Your task to perform on an android device: Do I have any events today? Image 0: 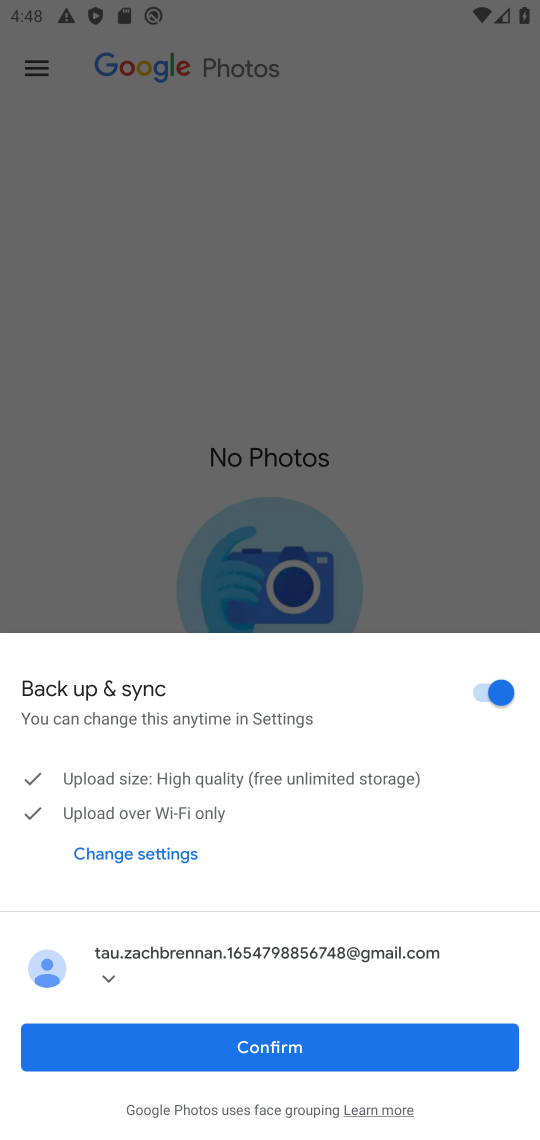
Step 0: press home button
Your task to perform on an android device: Do I have any events today? Image 1: 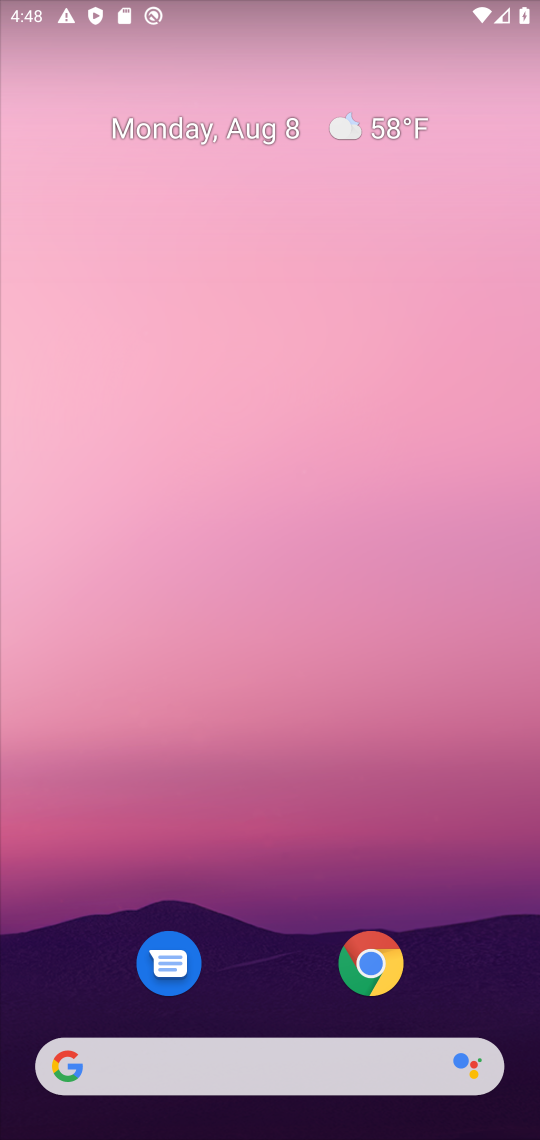
Step 1: drag from (281, 817) to (281, 55)
Your task to perform on an android device: Do I have any events today? Image 2: 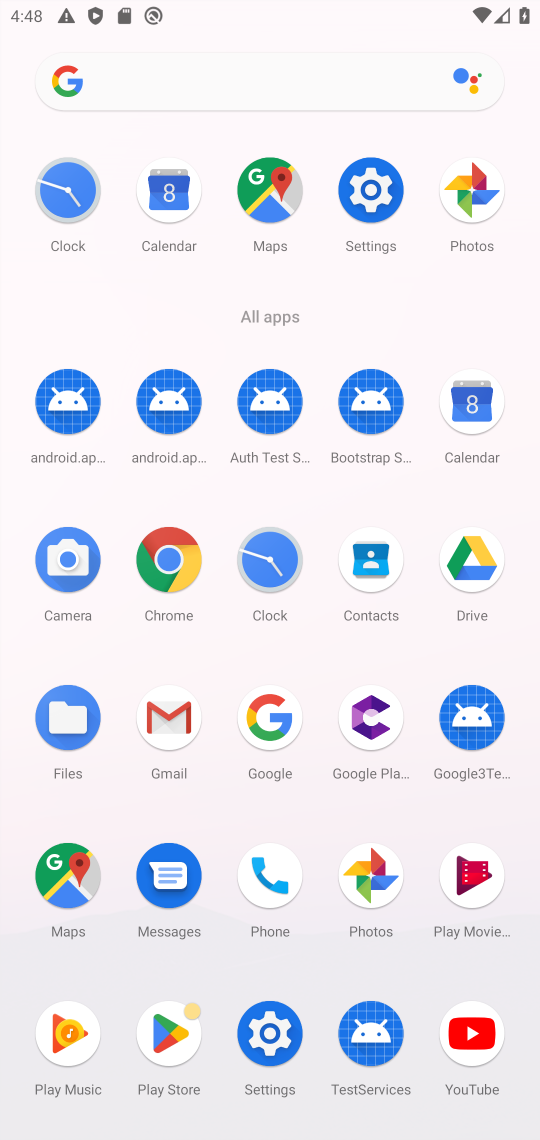
Step 2: click (470, 402)
Your task to perform on an android device: Do I have any events today? Image 3: 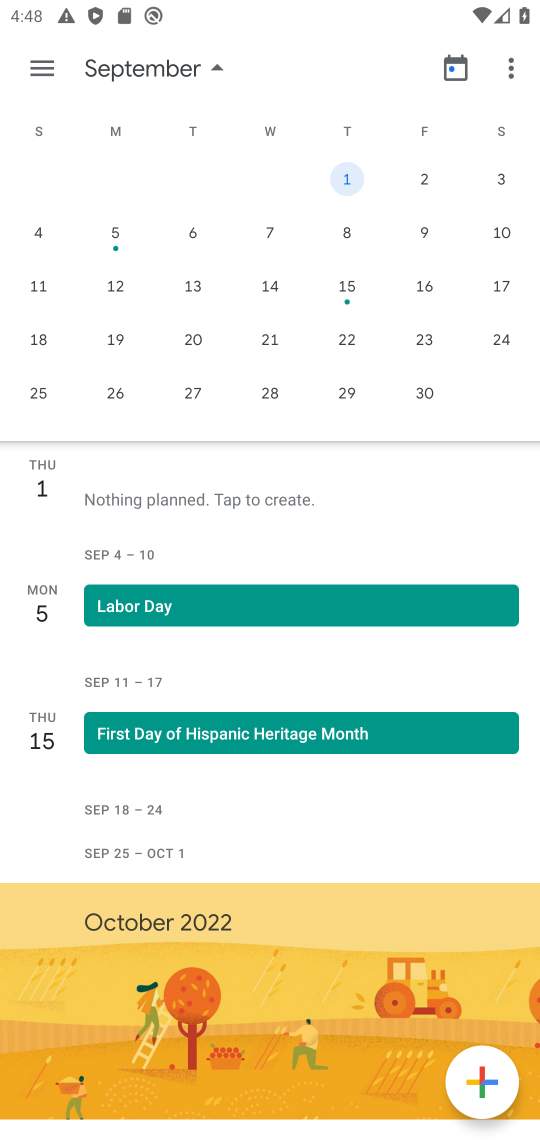
Step 3: drag from (110, 297) to (496, 331)
Your task to perform on an android device: Do I have any events today? Image 4: 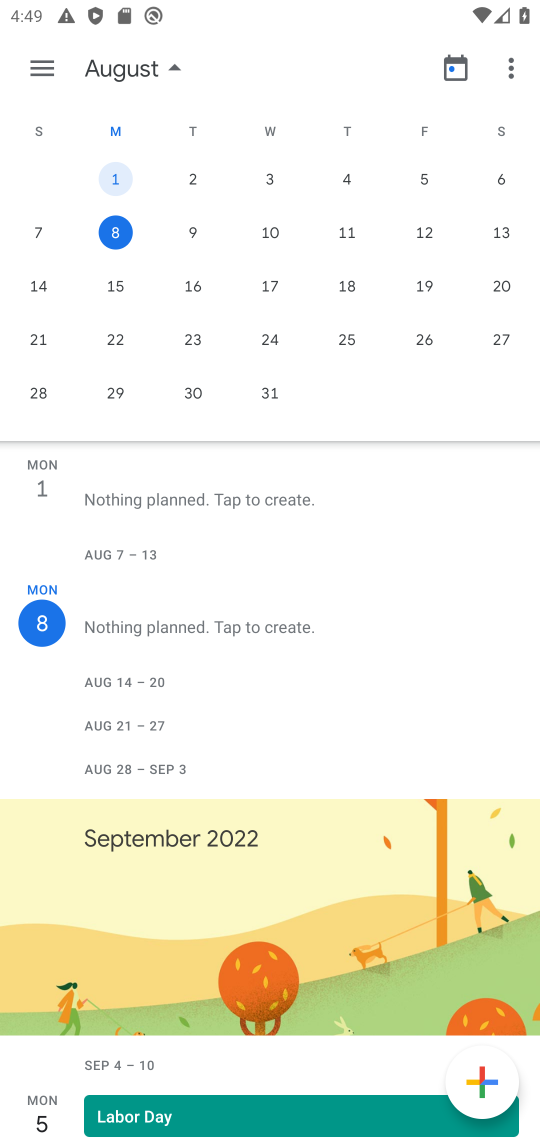
Step 4: drag from (119, 281) to (188, 253)
Your task to perform on an android device: Do I have any events today? Image 5: 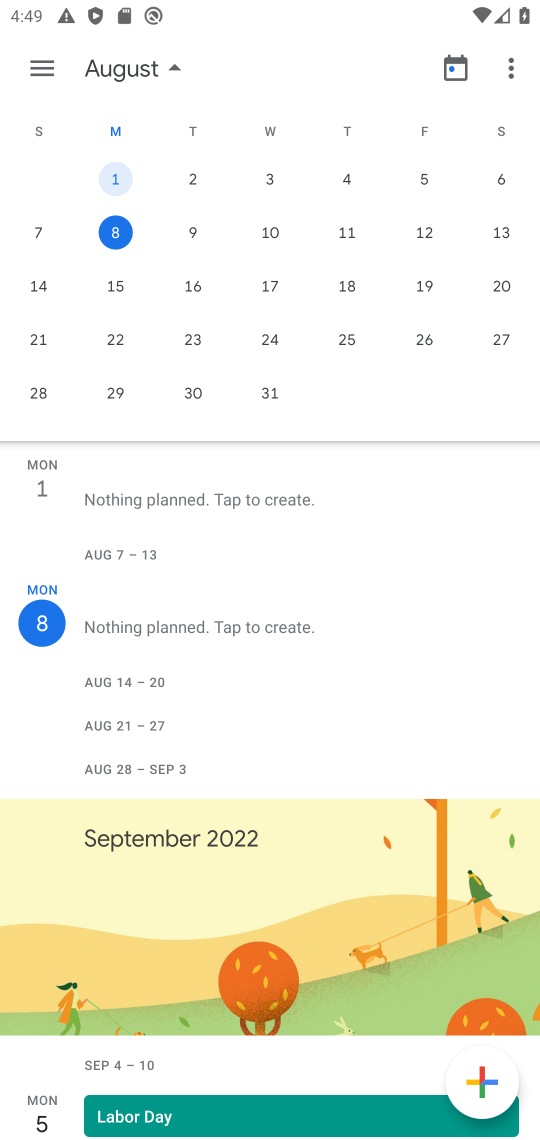
Step 5: click (121, 243)
Your task to perform on an android device: Do I have any events today? Image 6: 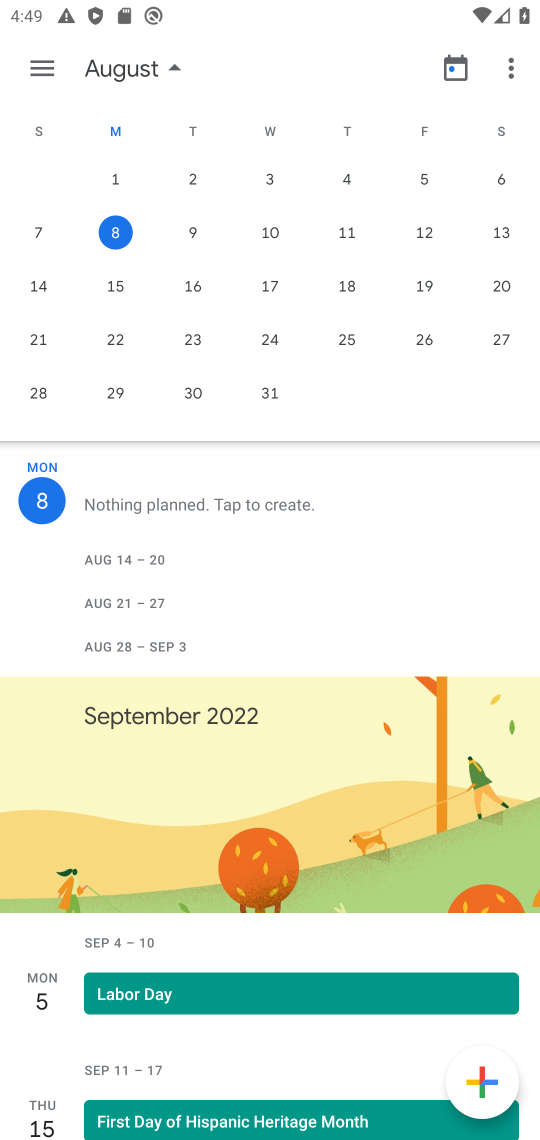
Step 6: task complete